Your task to perform on an android device: set default search engine in the chrome app Image 0: 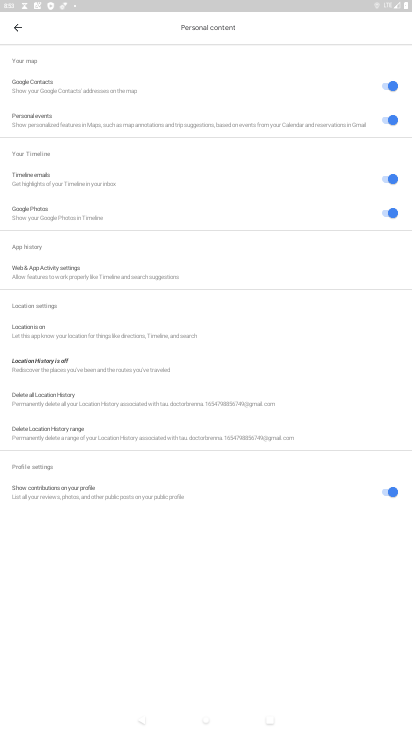
Step 0: press home button
Your task to perform on an android device: set default search engine in the chrome app Image 1: 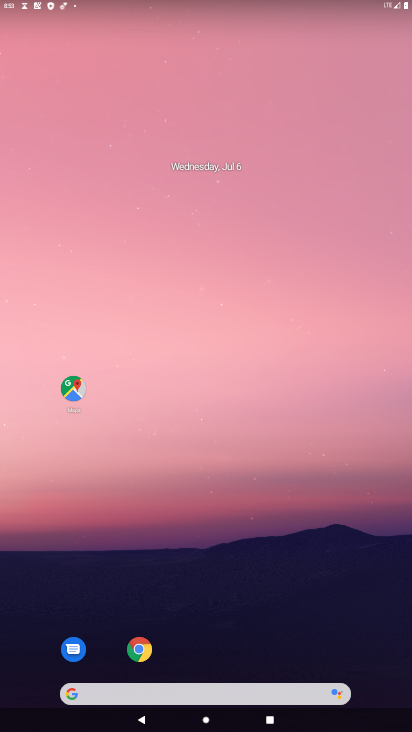
Step 1: click (138, 645)
Your task to perform on an android device: set default search engine in the chrome app Image 2: 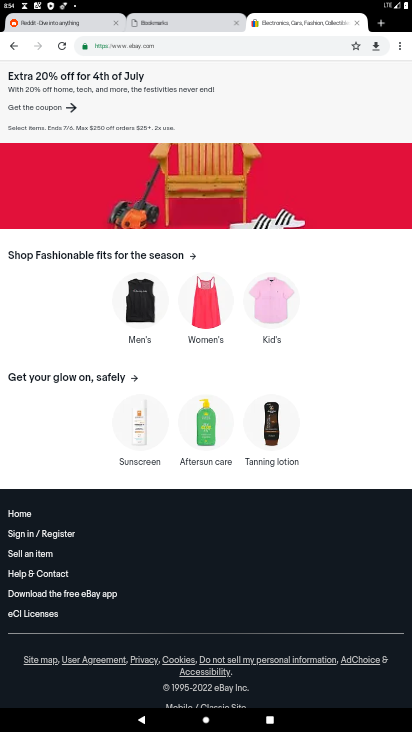
Step 2: click (234, 20)
Your task to perform on an android device: set default search engine in the chrome app Image 3: 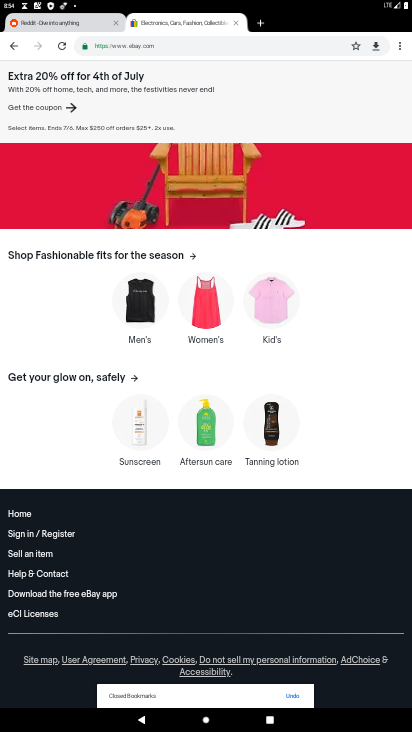
Step 3: click (235, 18)
Your task to perform on an android device: set default search engine in the chrome app Image 4: 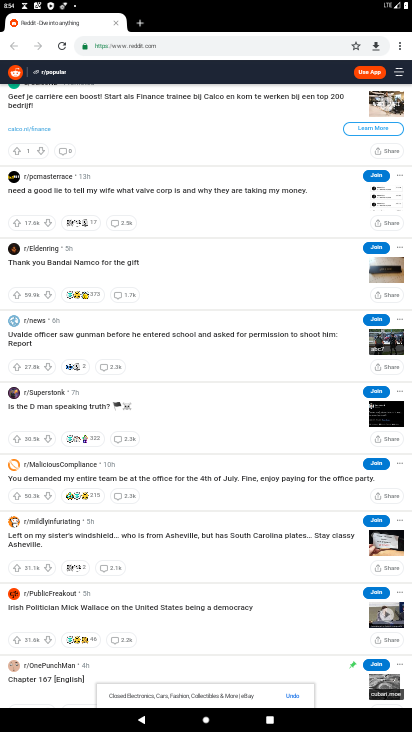
Step 4: click (144, 19)
Your task to perform on an android device: set default search engine in the chrome app Image 5: 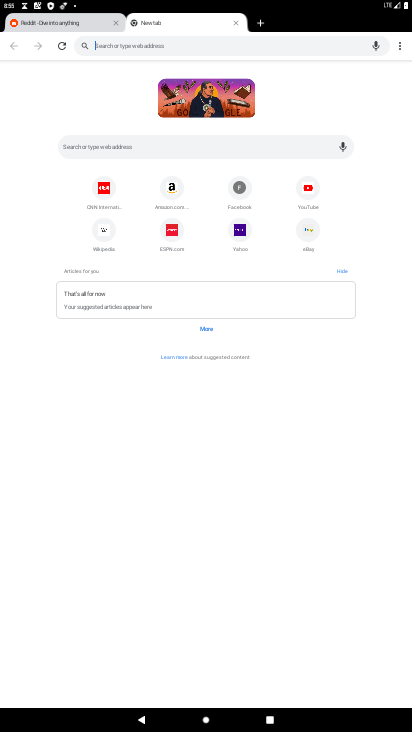
Step 5: click (401, 47)
Your task to perform on an android device: set default search engine in the chrome app Image 6: 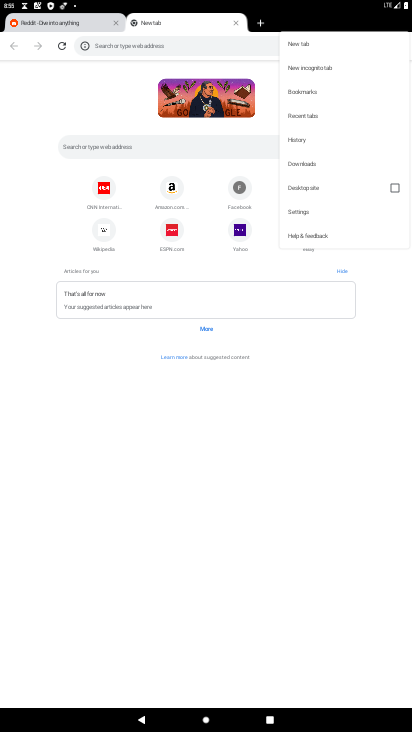
Step 6: click (318, 208)
Your task to perform on an android device: set default search engine in the chrome app Image 7: 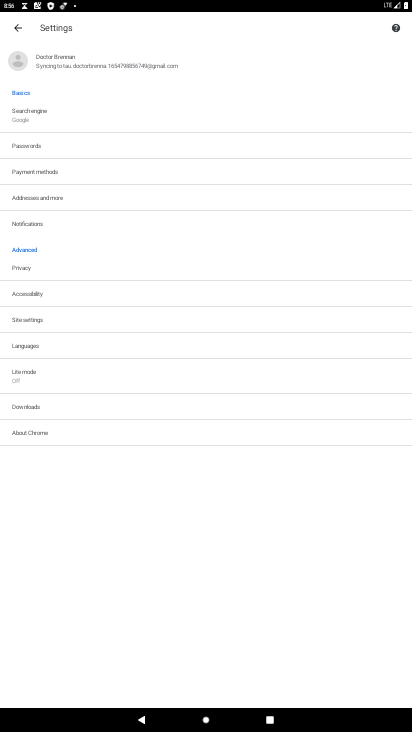
Step 7: click (52, 121)
Your task to perform on an android device: set default search engine in the chrome app Image 8: 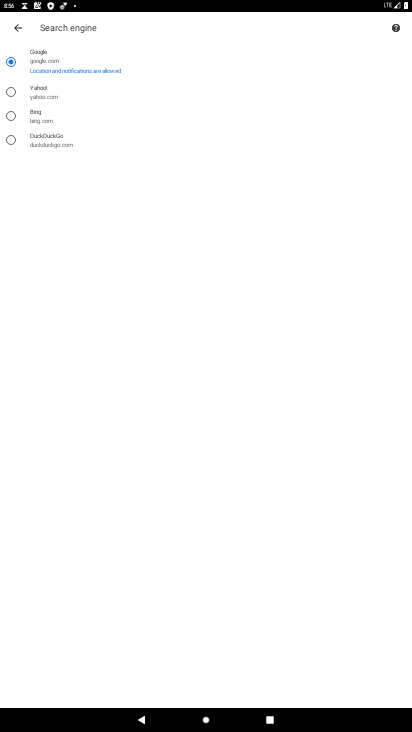
Step 8: click (10, 114)
Your task to perform on an android device: set default search engine in the chrome app Image 9: 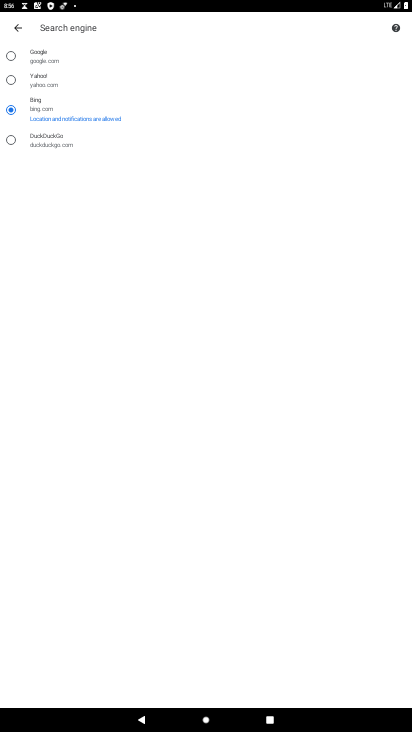
Step 9: task complete